Your task to perform on an android device: Open internet settings Image 0: 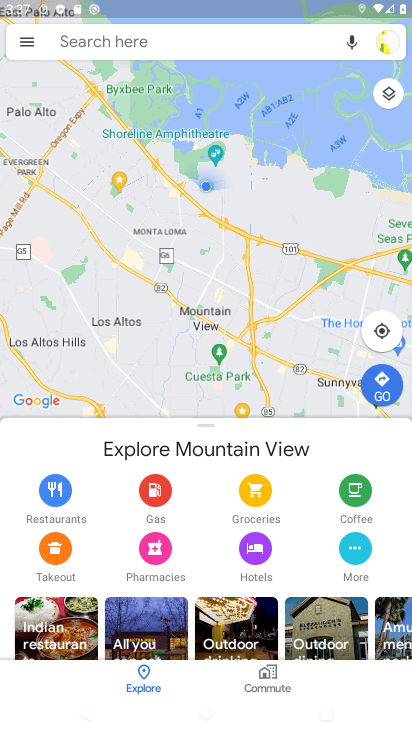
Step 0: press home button
Your task to perform on an android device: Open internet settings Image 1: 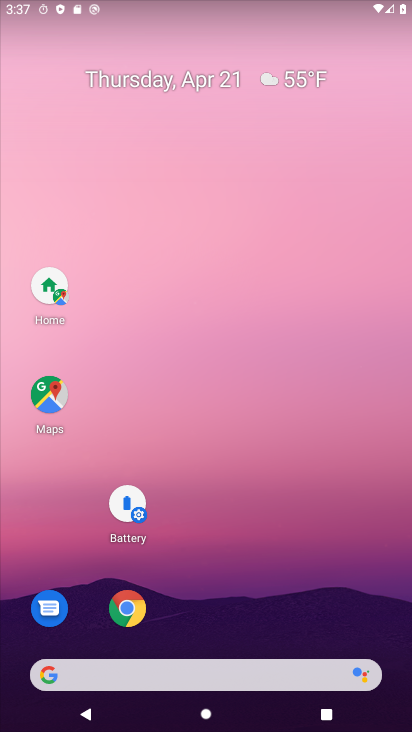
Step 1: drag from (268, 514) to (373, 1)
Your task to perform on an android device: Open internet settings Image 2: 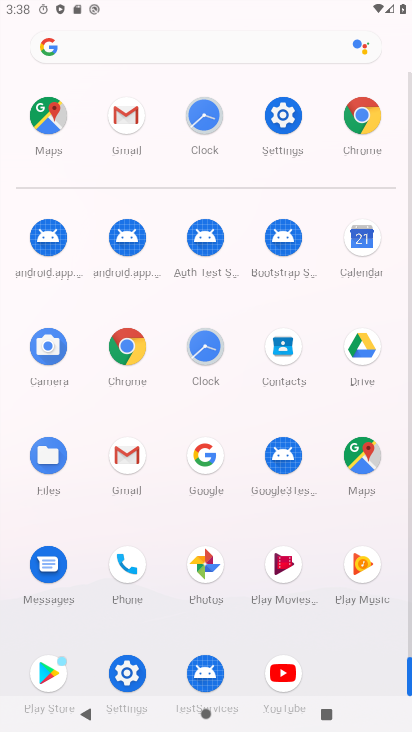
Step 2: click (274, 118)
Your task to perform on an android device: Open internet settings Image 3: 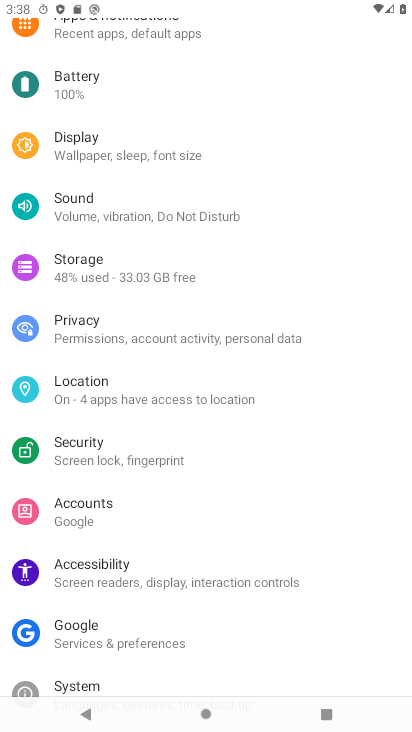
Step 3: drag from (245, 168) to (231, 531)
Your task to perform on an android device: Open internet settings Image 4: 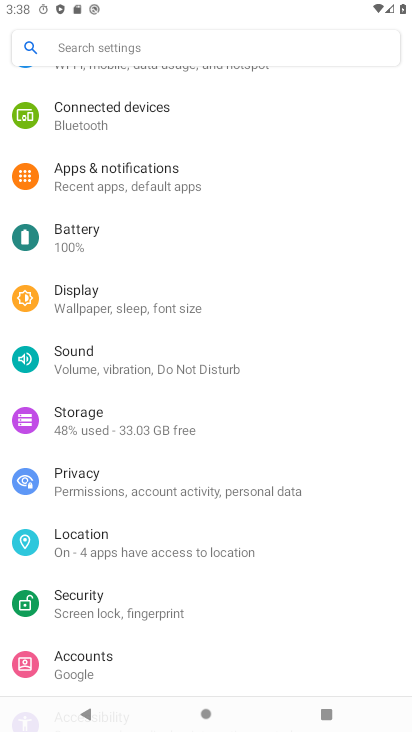
Step 4: drag from (241, 117) to (209, 607)
Your task to perform on an android device: Open internet settings Image 5: 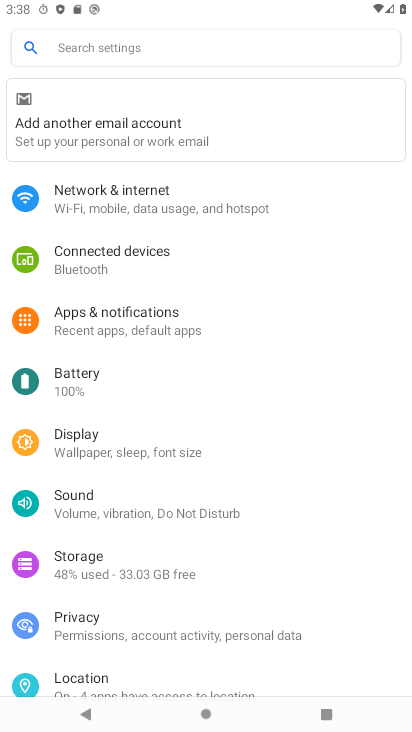
Step 5: click (143, 200)
Your task to perform on an android device: Open internet settings Image 6: 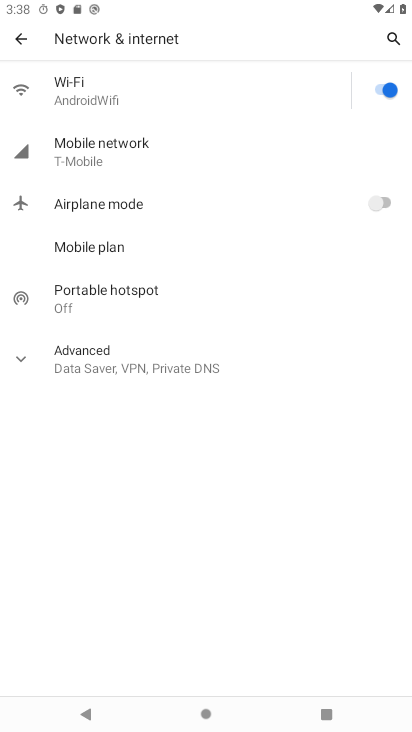
Step 6: click (99, 146)
Your task to perform on an android device: Open internet settings Image 7: 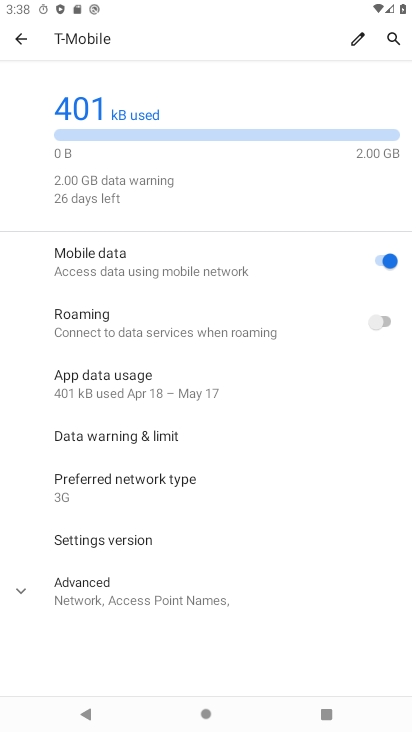
Step 7: task complete